Your task to perform on an android device: move an email to a new category in the gmail app Image 0: 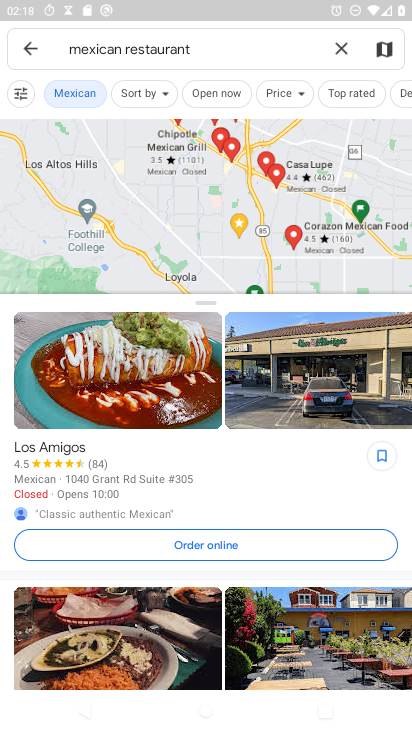
Step 0: press home button
Your task to perform on an android device: move an email to a new category in the gmail app Image 1: 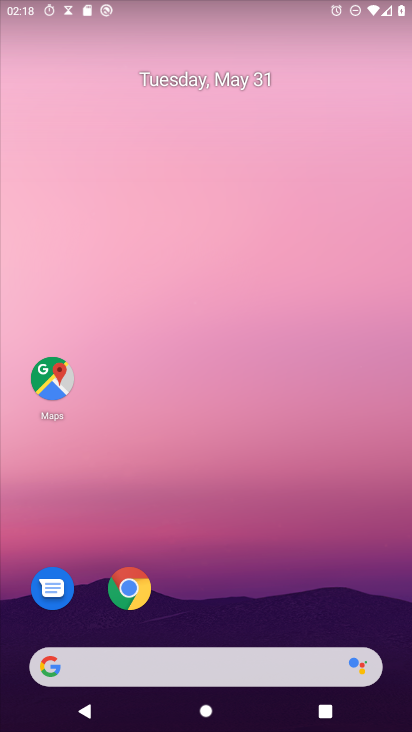
Step 1: drag from (249, 696) to (186, 4)
Your task to perform on an android device: move an email to a new category in the gmail app Image 2: 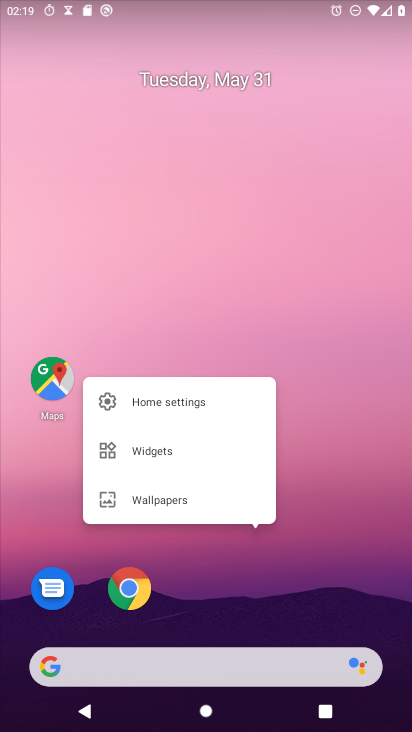
Step 2: click (339, 390)
Your task to perform on an android device: move an email to a new category in the gmail app Image 3: 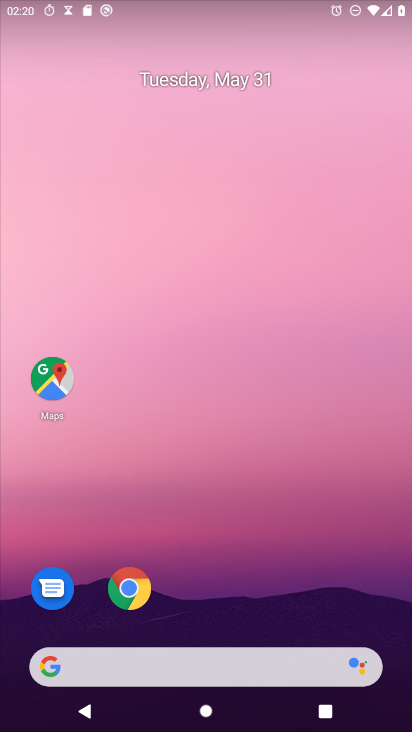
Step 3: drag from (187, 668) to (203, 124)
Your task to perform on an android device: move an email to a new category in the gmail app Image 4: 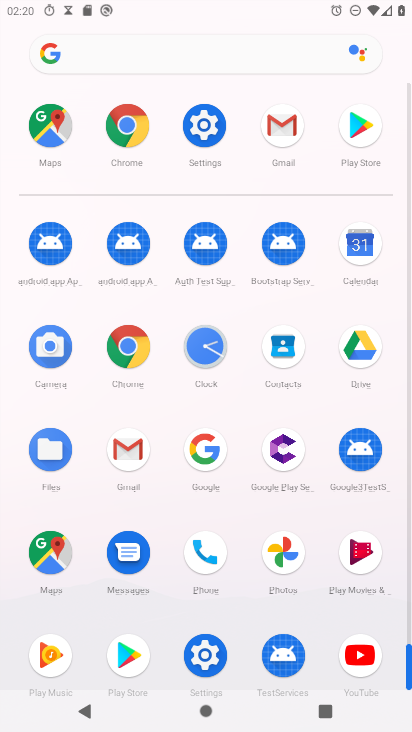
Step 4: click (144, 448)
Your task to perform on an android device: move an email to a new category in the gmail app Image 5: 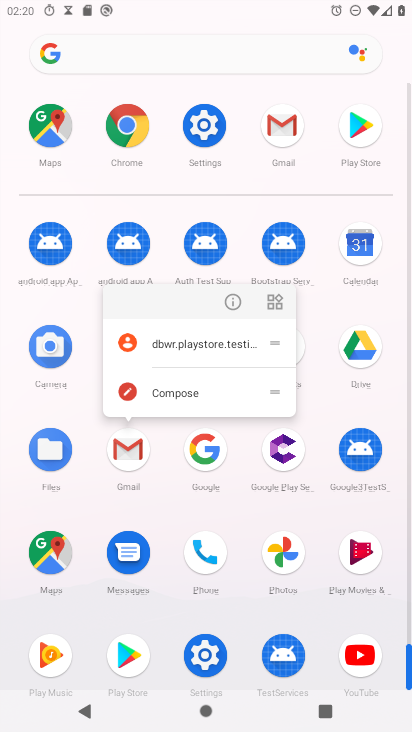
Step 5: click (128, 461)
Your task to perform on an android device: move an email to a new category in the gmail app Image 6: 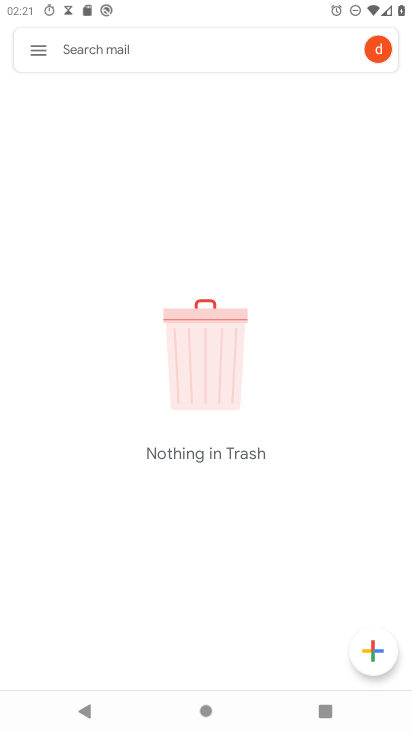
Step 6: task complete